Your task to perform on an android device: check android version Image 0: 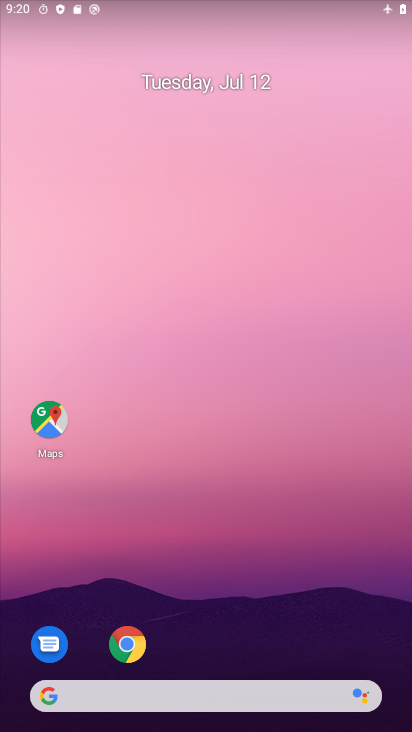
Step 0: drag from (207, 639) to (209, 127)
Your task to perform on an android device: check android version Image 1: 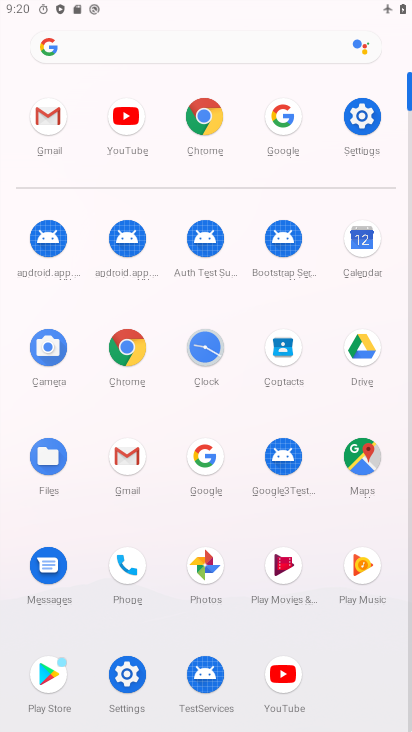
Step 1: click (360, 105)
Your task to perform on an android device: check android version Image 2: 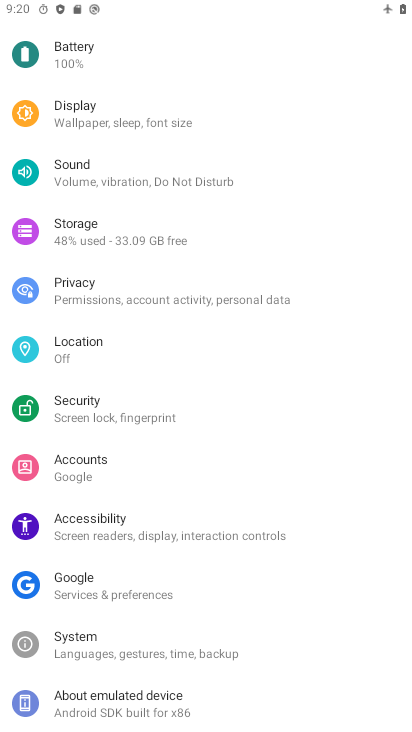
Step 2: click (161, 690)
Your task to perform on an android device: check android version Image 3: 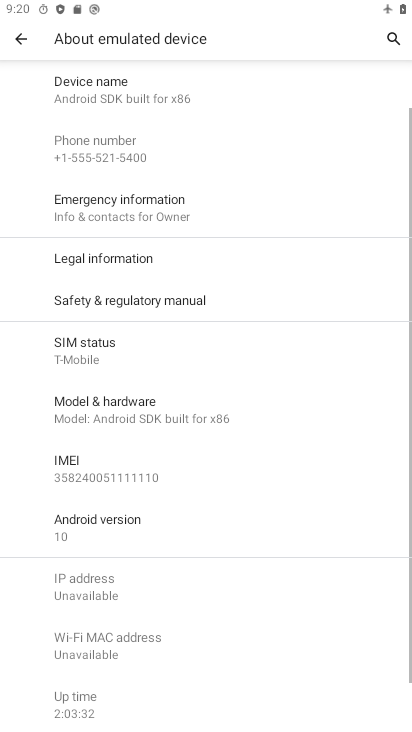
Step 3: drag from (192, 266) to (206, 488)
Your task to perform on an android device: check android version Image 4: 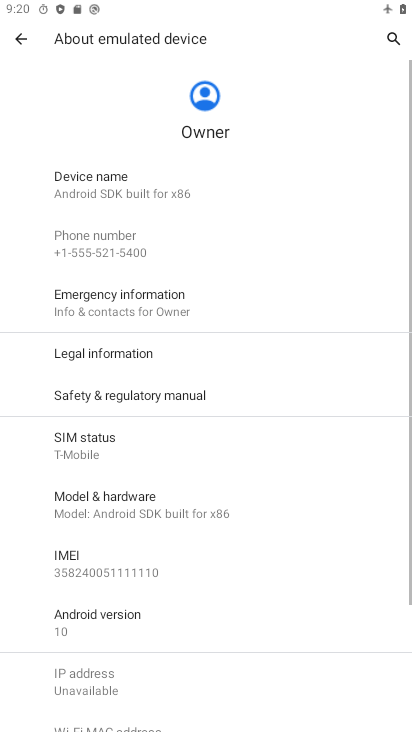
Step 4: drag from (212, 613) to (219, 287)
Your task to perform on an android device: check android version Image 5: 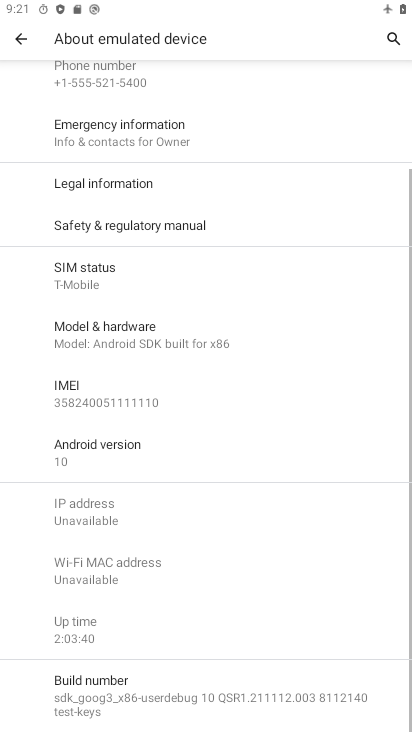
Step 5: drag from (167, 234) to (173, 482)
Your task to perform on an android device: check android version Image 6: 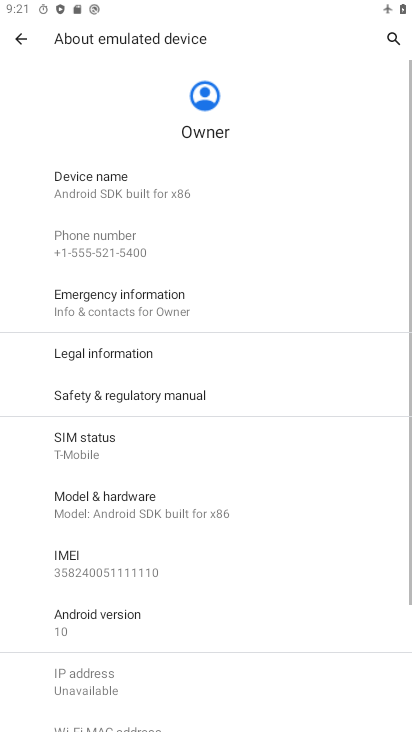
Step 6: drag from (177, 608) to (174, 292)
Your task to perform on an android device: check android version Image 7: 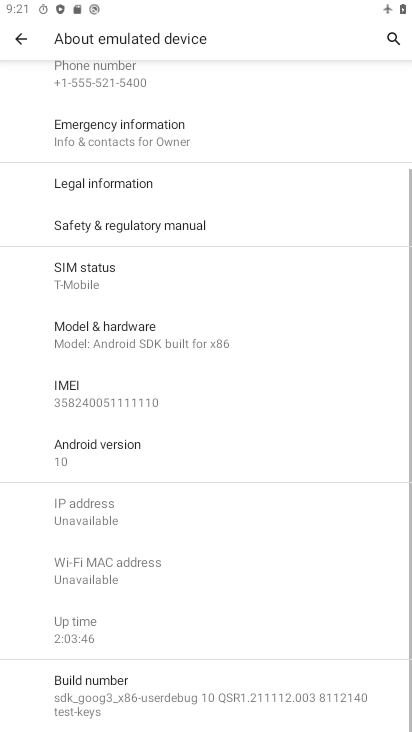
Step 7: click (114, 473)
Your task to perform on an android device: check android version Image 8: 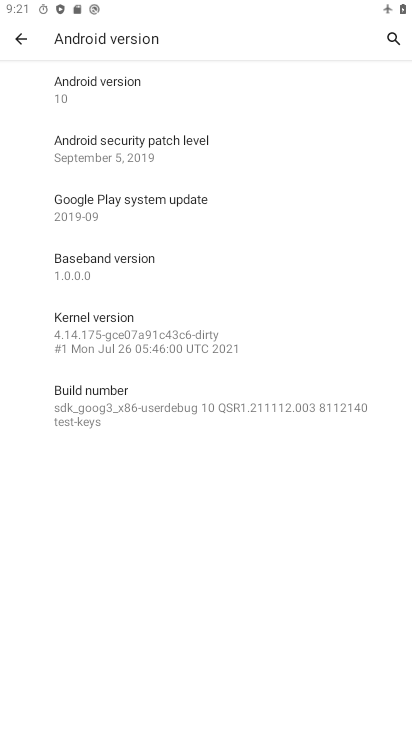
Step 8: click (135, 98)
Your task to perform on an android device: check android version Image 9: 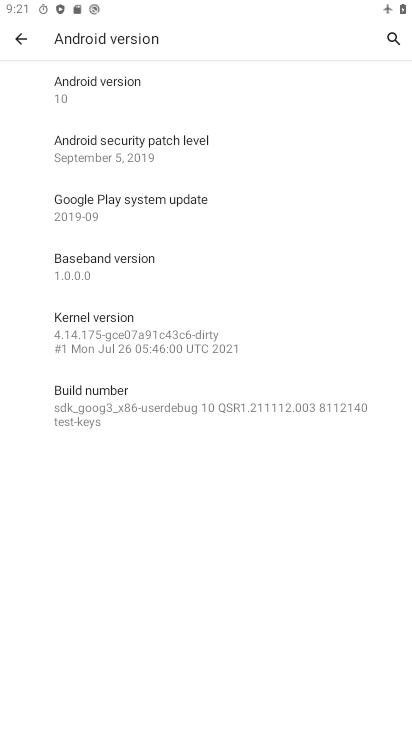
Step 9: task complete